Your task to perform on an android device: When is my next appointment? Image 0: 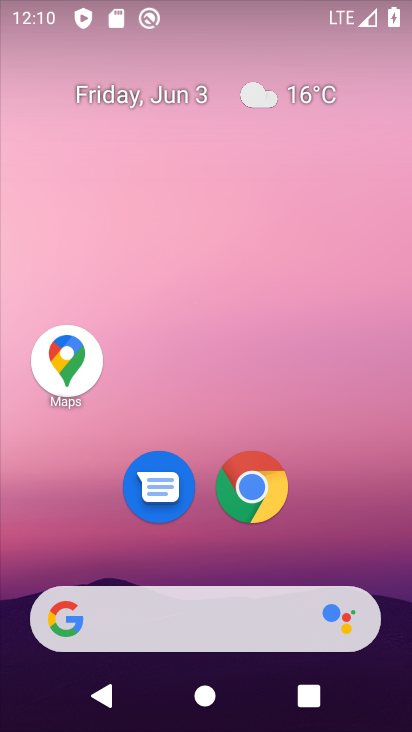
Step 0: press home button
Your task to perform on an android device: When is my next appointment? Image 1: 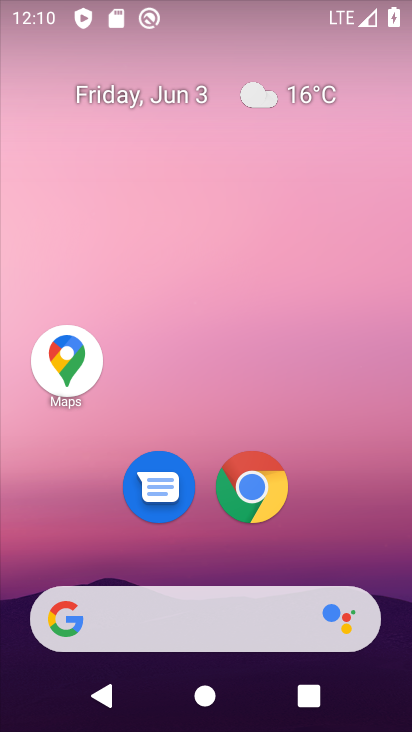
Step 1: drag from (338, 515) to (283, 141)
Your task to perform on an android device: When is my next appointment? Image 2: 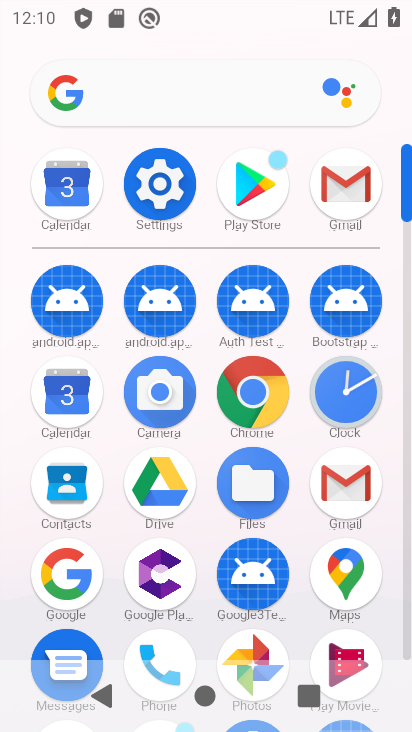
Step 2: click (66, 200)
Your task to perform on an android device: When is my next appointment? Image 3: 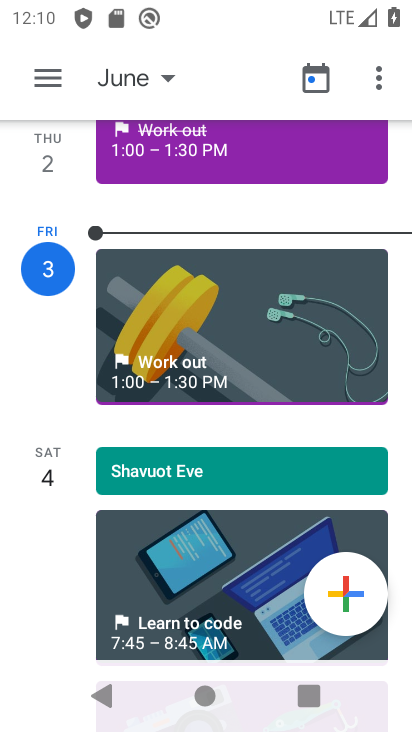
Step 3: click (36, 80)
Your task to perform on an android device: When is my next appointment? Image 4: 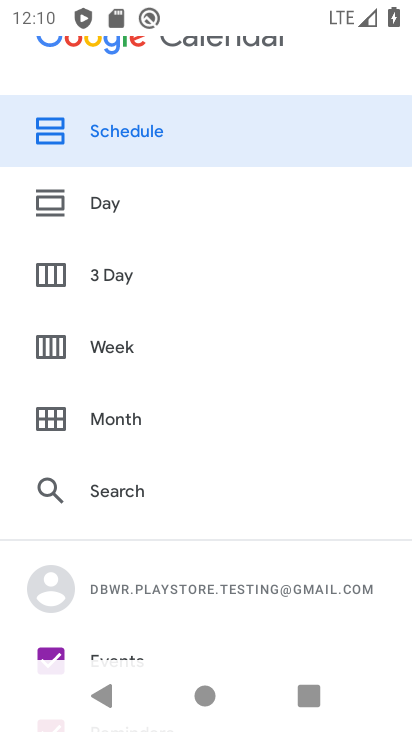
Step 4: click (108, 128)
Your task to perform on an android device: When is my next appointment? Image 5: 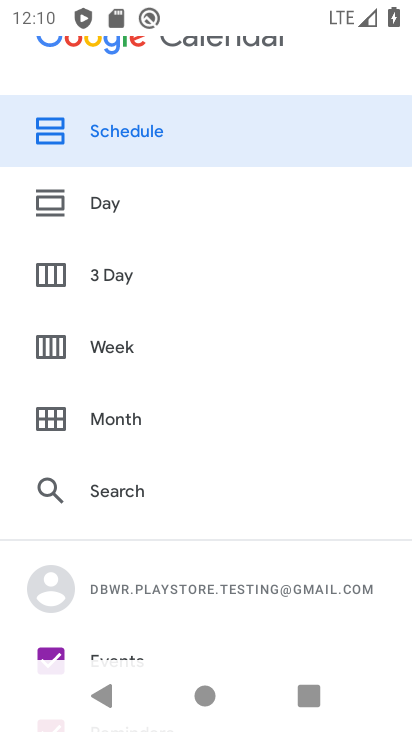
Step 5: click (133, 135)
Your task to perform on an android device: When is my next appointment? Image 6: 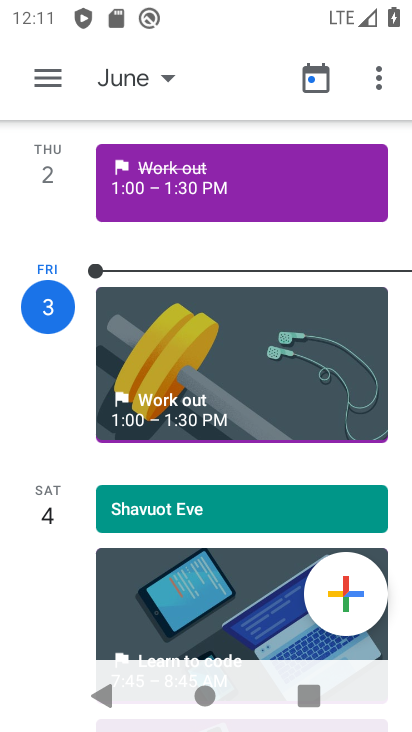
Step 6: task complete